Your task to perform on an android device: install app "Skype" Image 0: 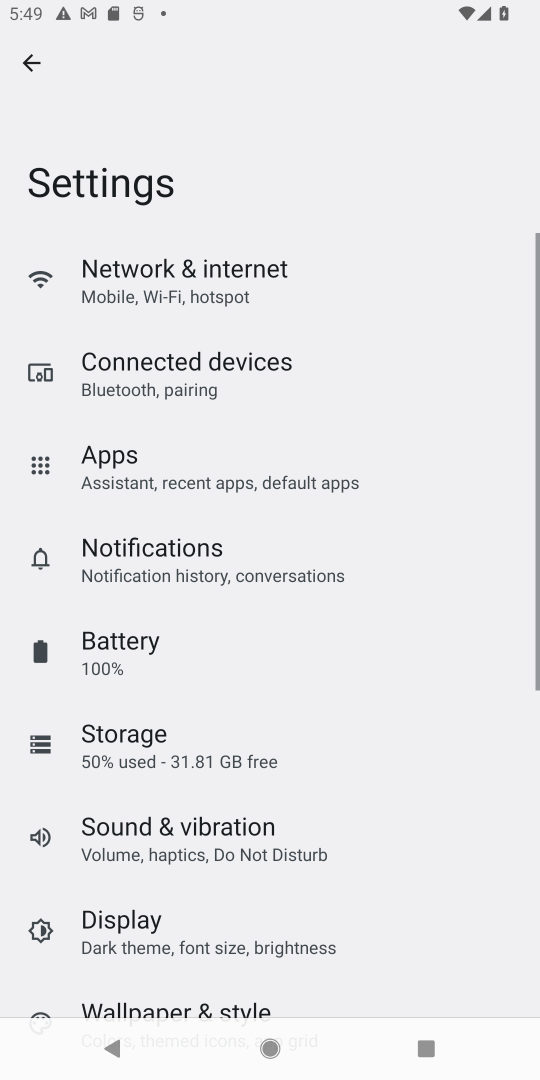
Step 0: press home button
Your task to perform on an android device: install app "Skype" Image 1: 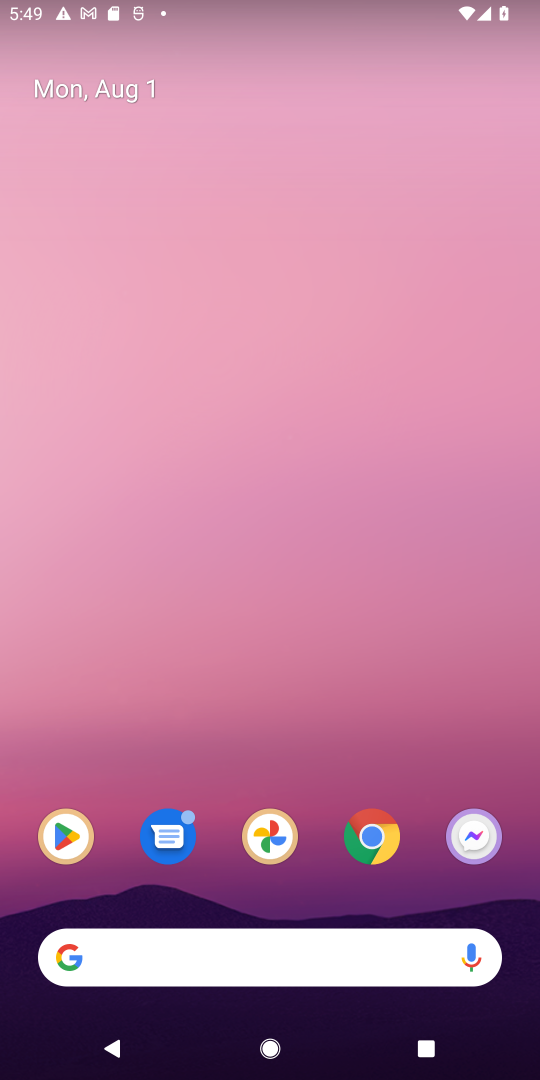
Step 1: click (53, 842)
Your task to perform on an android device: install app "Skype" Image 2: 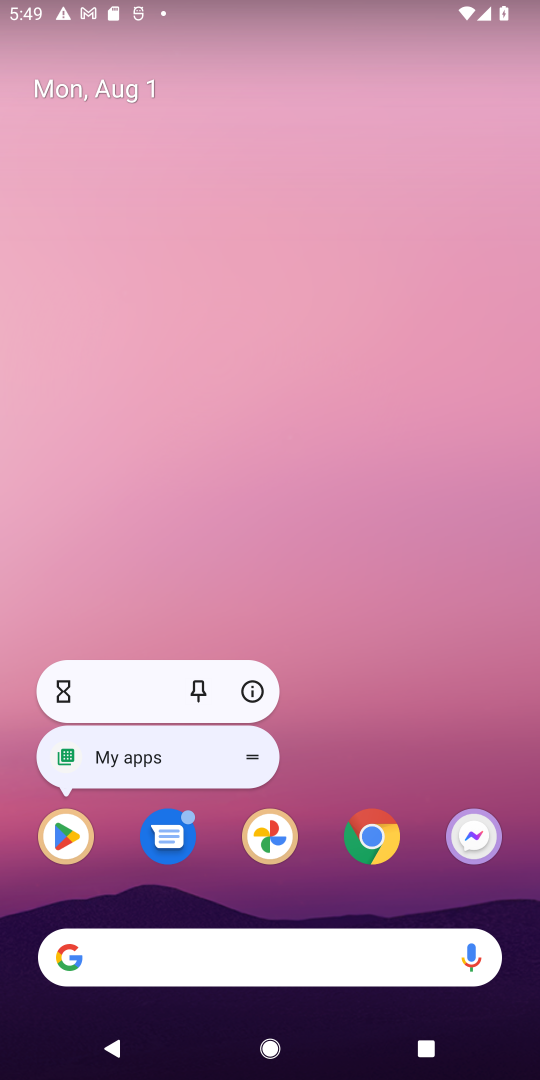
Step 2: click (63, 832)
Your task to perform on an android device: install app "Skype" Image 3: 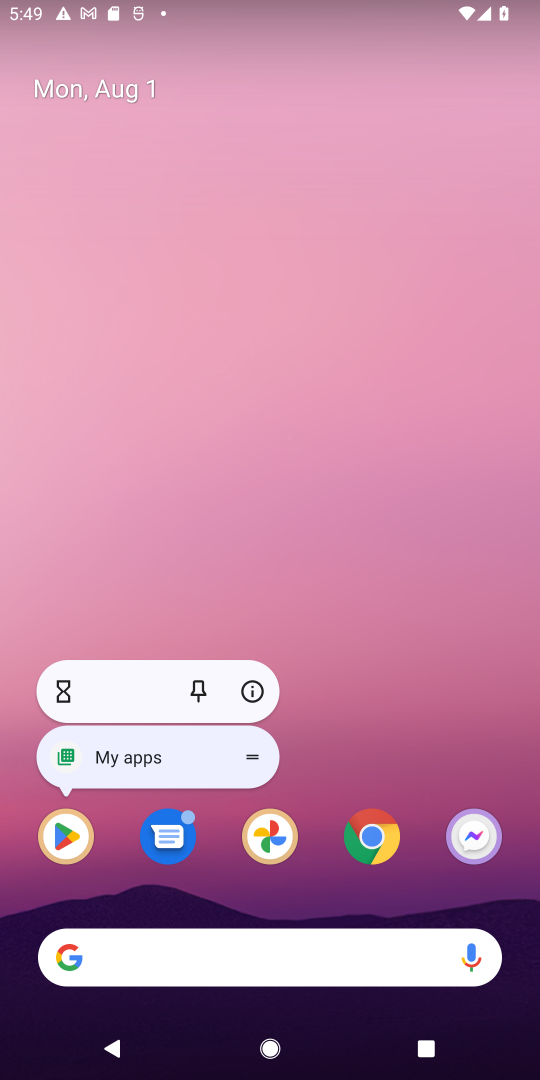
Step 3: click (63, 832)
Your task to perform on an android device: install app "Skype" Image 4: 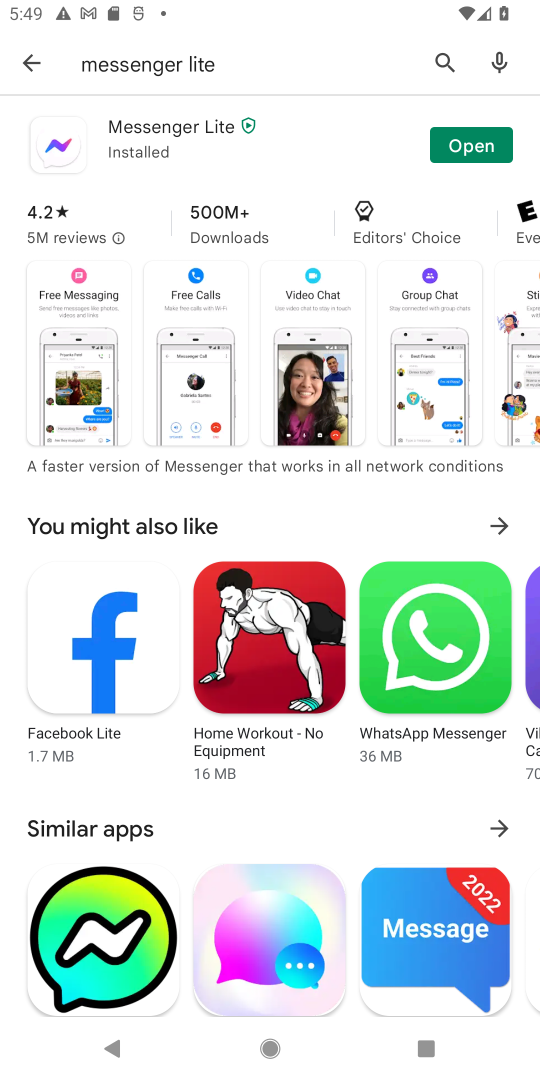
Step 4: click (433, 63)
Your task to perform on an android device: install app "Skype" Image 5: 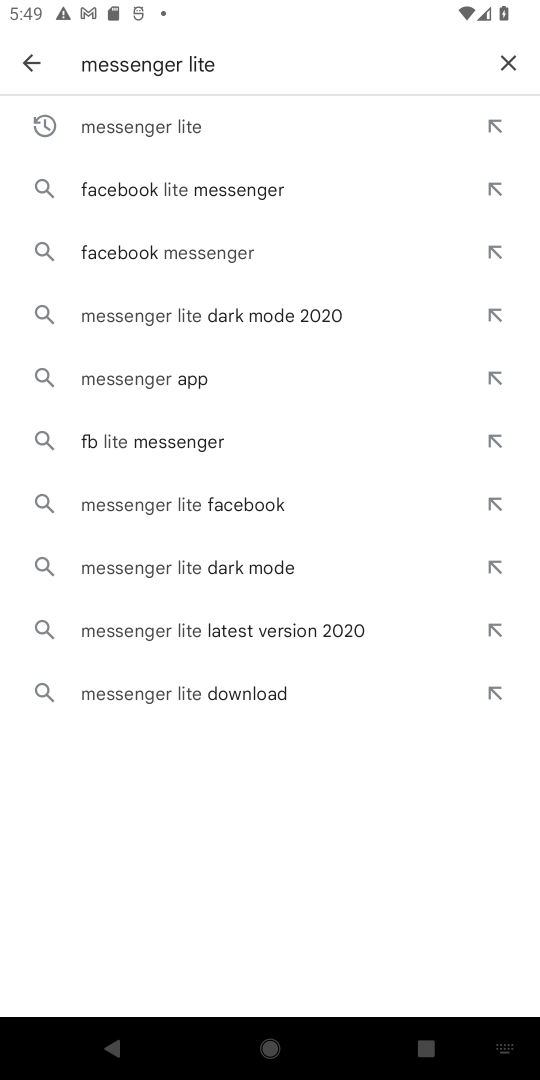
Step 5: click (512, 59)
Your task to perform on an android device: install app "Skype" Image 6: 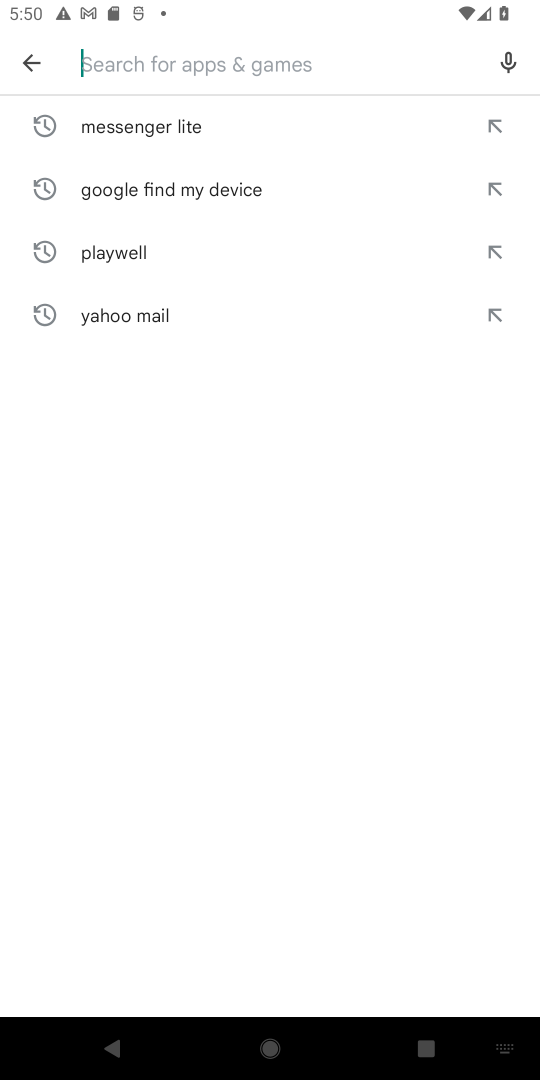
Step 6: type "Skype"
Your task to perform on an android device: install app "Skype" Image 7: 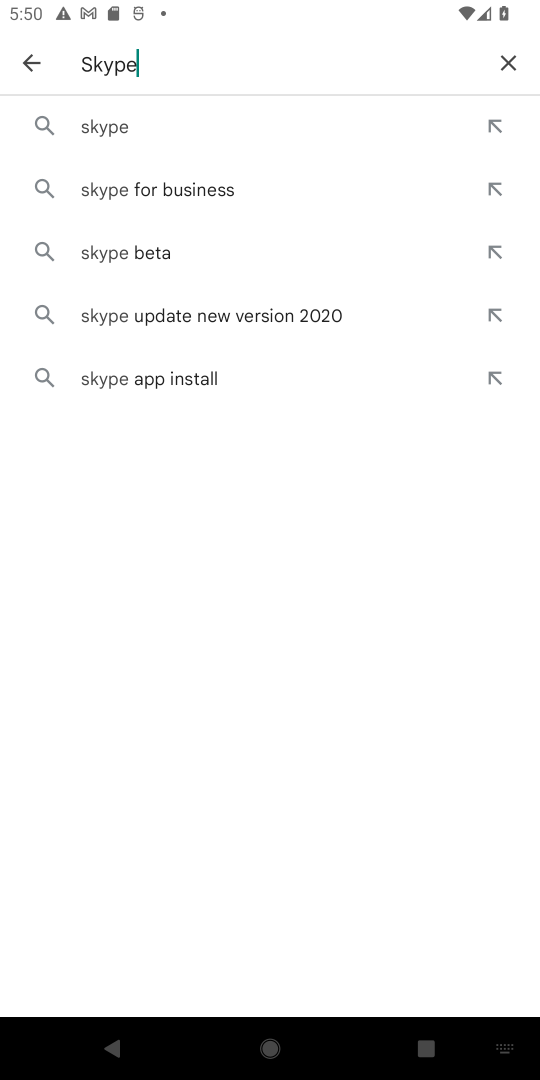
Step 7: click (119, 117)
Your task to perform on an android device: install app "Skype" Image 8: 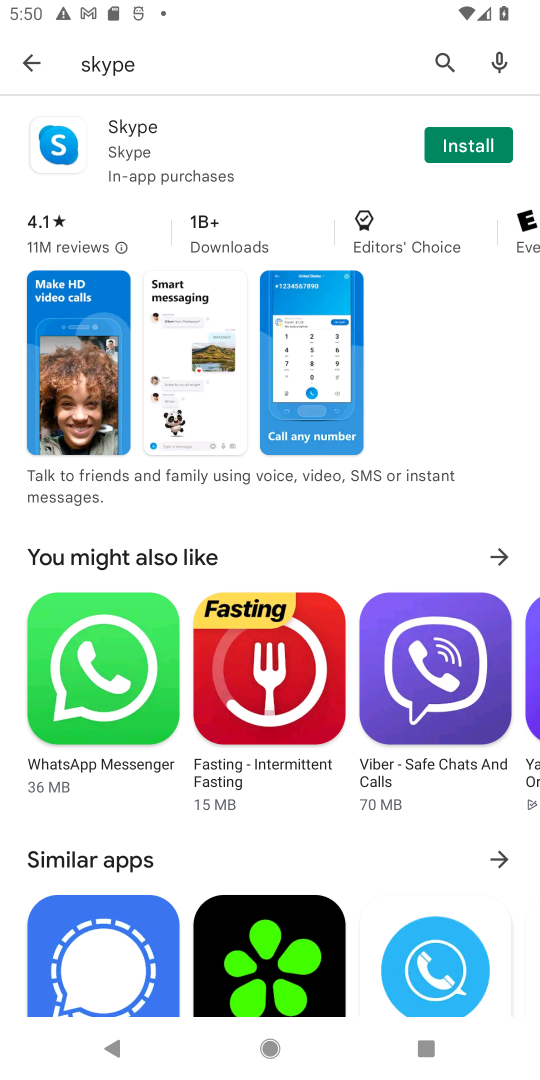
Step 8: click (470, 140)
Your task to perform on an android device: install app "Skype" Image 9: 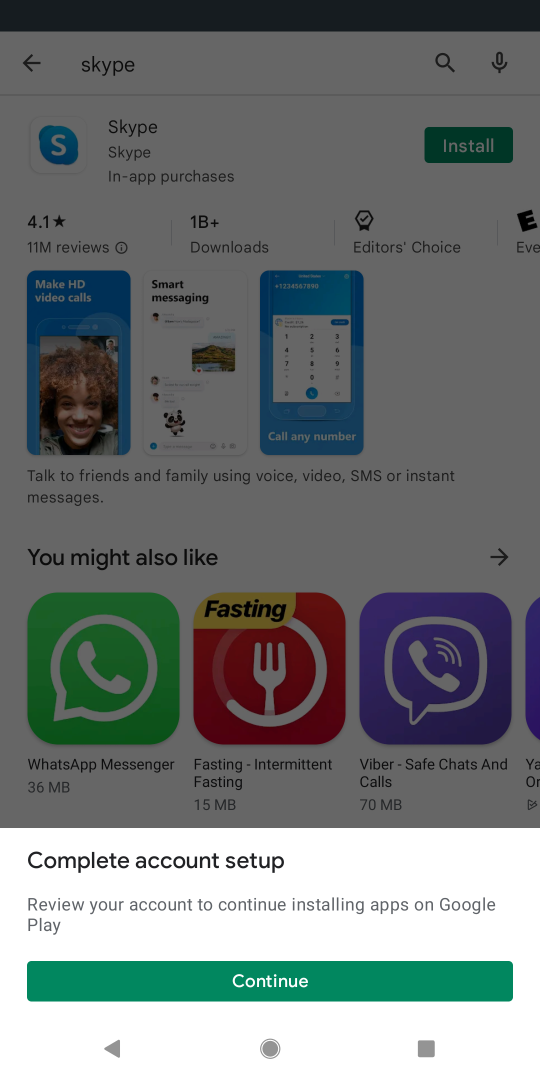
Step 9: click (270, 986)
Your task to perform on an android device: install app "Skype" Image 10: 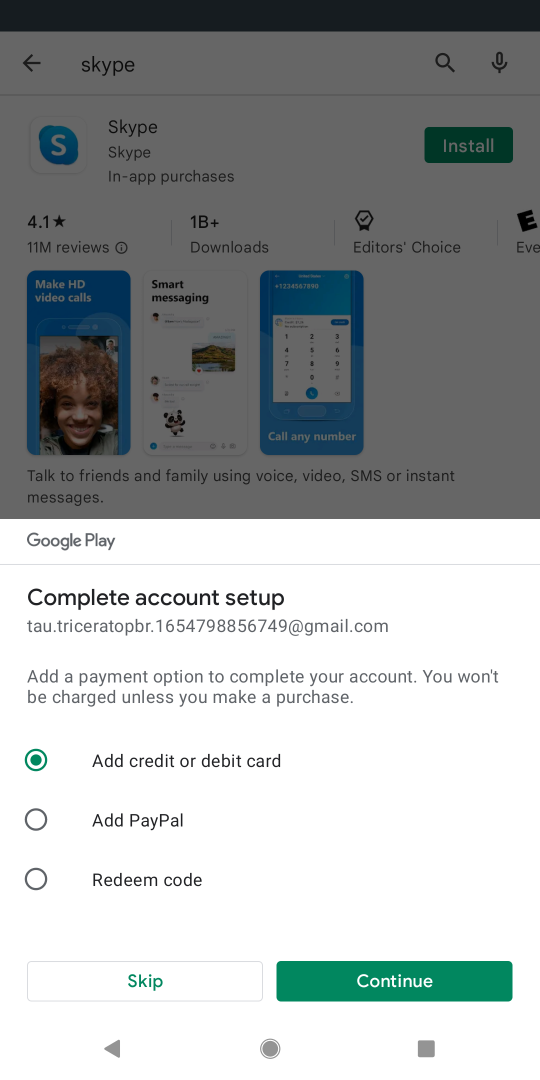
Step 10: click (169, 977)
Your task to perform on an android device: install app "Skype" Image 11: 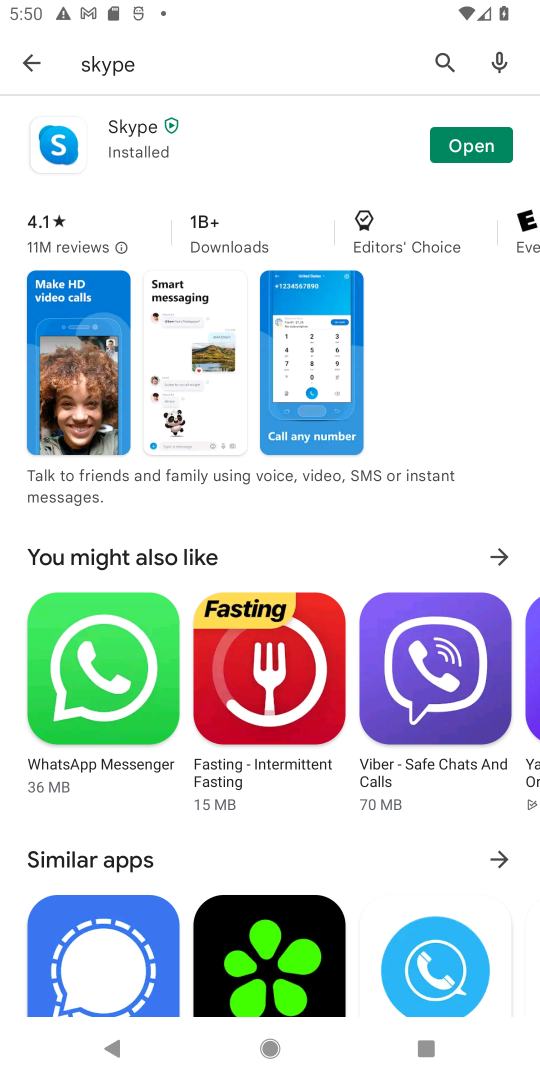
Step 11: task complete